Your task to perform on an android device: Go to Google Image 0: 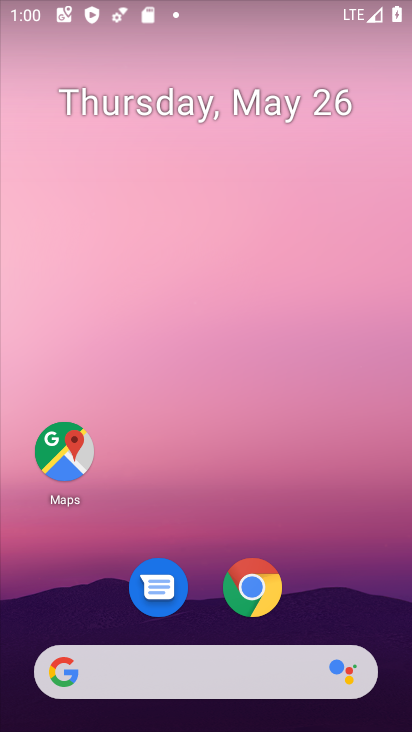
Step 0: drag from (373, 618) to (374, 126)
Your task to perform on an android device: Go to Google Image 1: 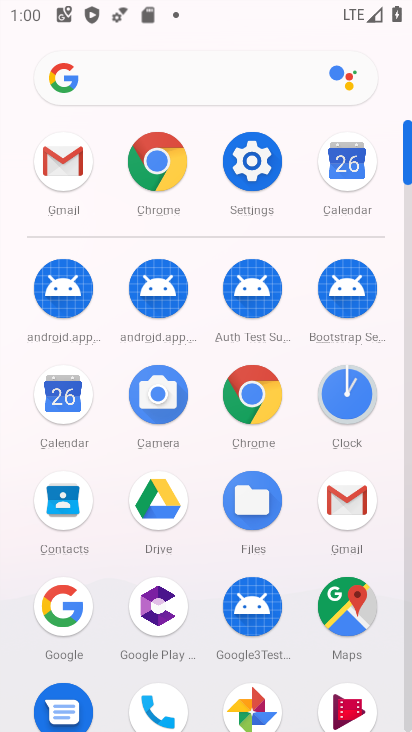
Step 1: click (252, 407)
Your task to perform on an android device: Go to Google Image 2: 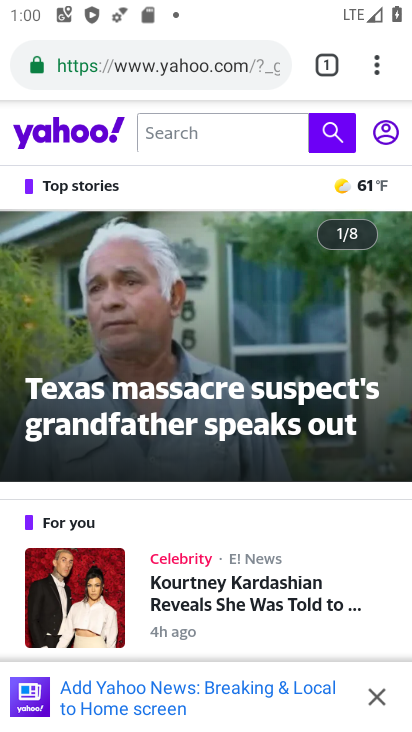
Step 2: press home button
Your task to perform on an android device: Go to Google Image 3: 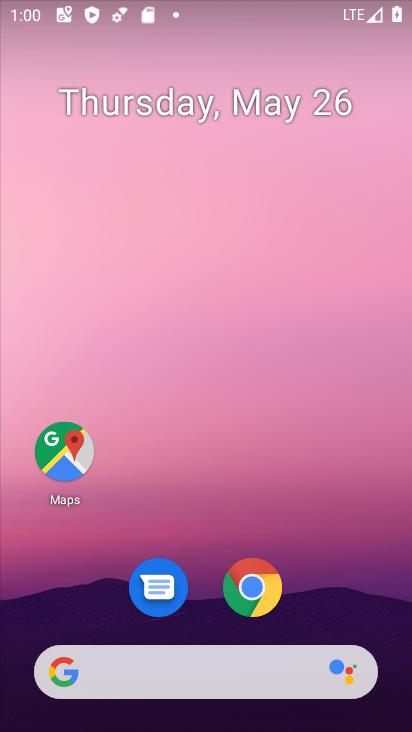
Step 3: drag from (338, 587) to (343, 140)
Your task to perform on an android device: Go to Google Image 4: 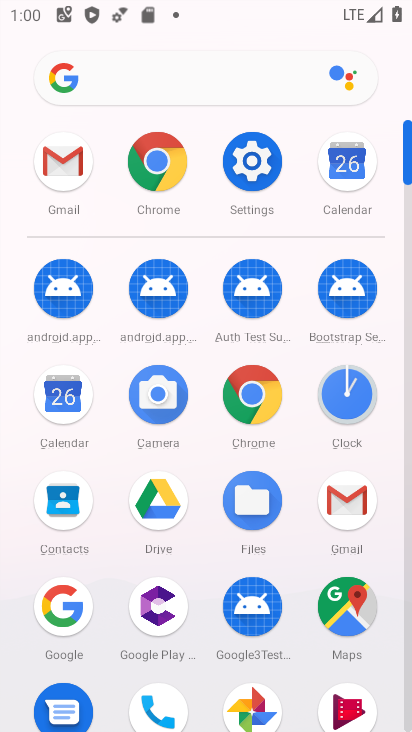
Step 4: click (60, 603)
Your task to perform on an android device: Go to Google Image 5: 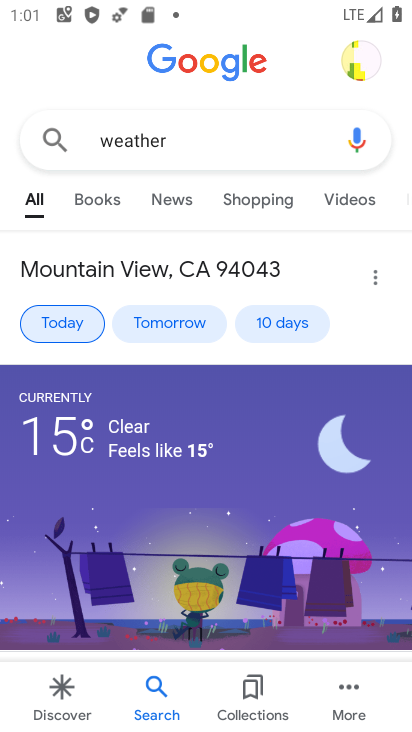
Step 5: task complete